Your task to perform on an android device: Open the Play Movies app and select the watchlist tab. Image 0: 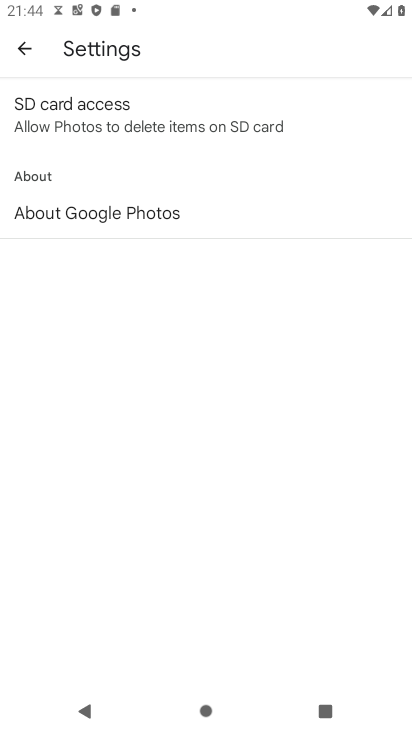
Step 0: press home button
Your task to perform on an android device: Open the Play Movies app and select the watchlist tab. Image 1: 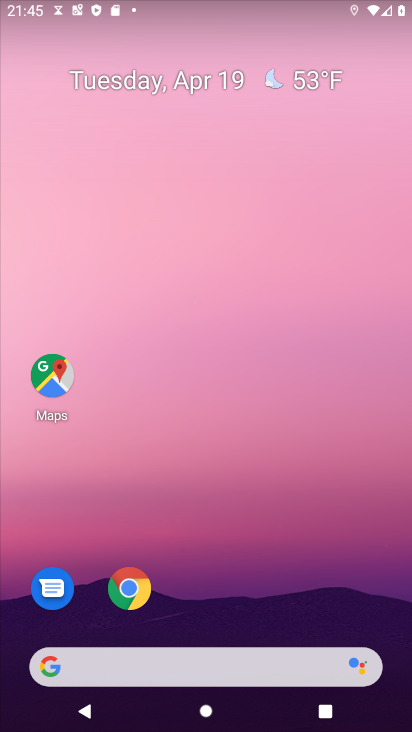
Step 1: drag from (210, 602) to (301, 13)
Your task to perform on an android device: Open the Play Movies app and select the watchlist tab. Image 2: 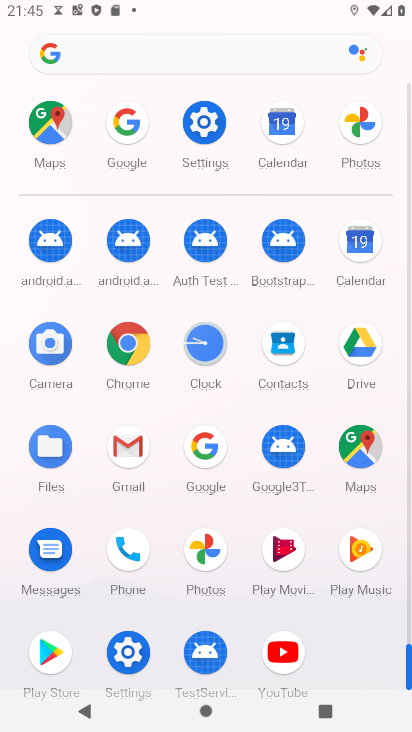
Step 2: drag from (247, 515) to (230, 387)
Your task to perform on an android device: Open the Play Movies app and select the watchlist tab. Image 3: 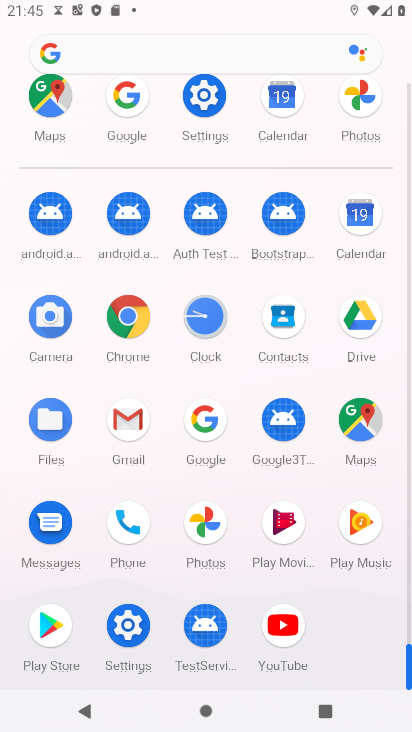
Step 3: click (283, 527)
Your task to perform on an android device: Open the Play Movies app and select the watchlist tab. Image 4: 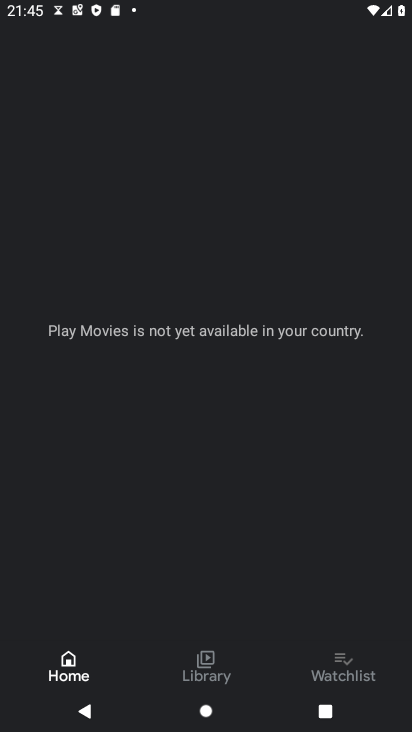
Step 4: click (342, 666)
Your task to perform on an android device: Open the Play Movies app and select the watchlist tab. Image 5: 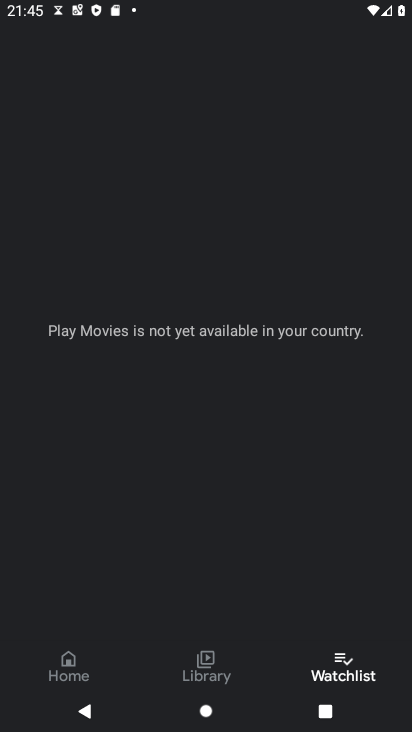
Step 5: task complete